Your task to perform on an android device: move an email to a new category in the gmail app Image 0: 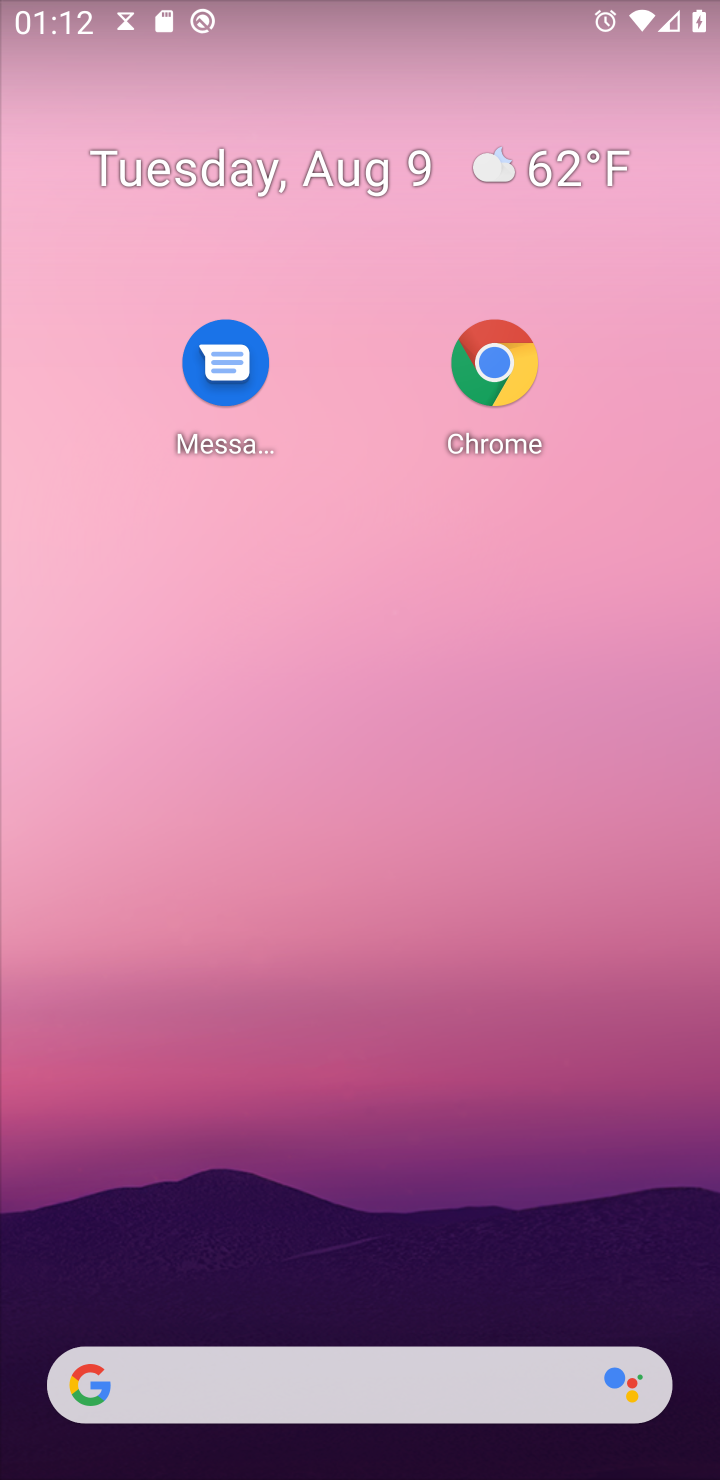
Step 0: drag from (246, 1328) to (302, 552)
Your task to perform on an android device: move an email to a new category in the gmail app Image 1: 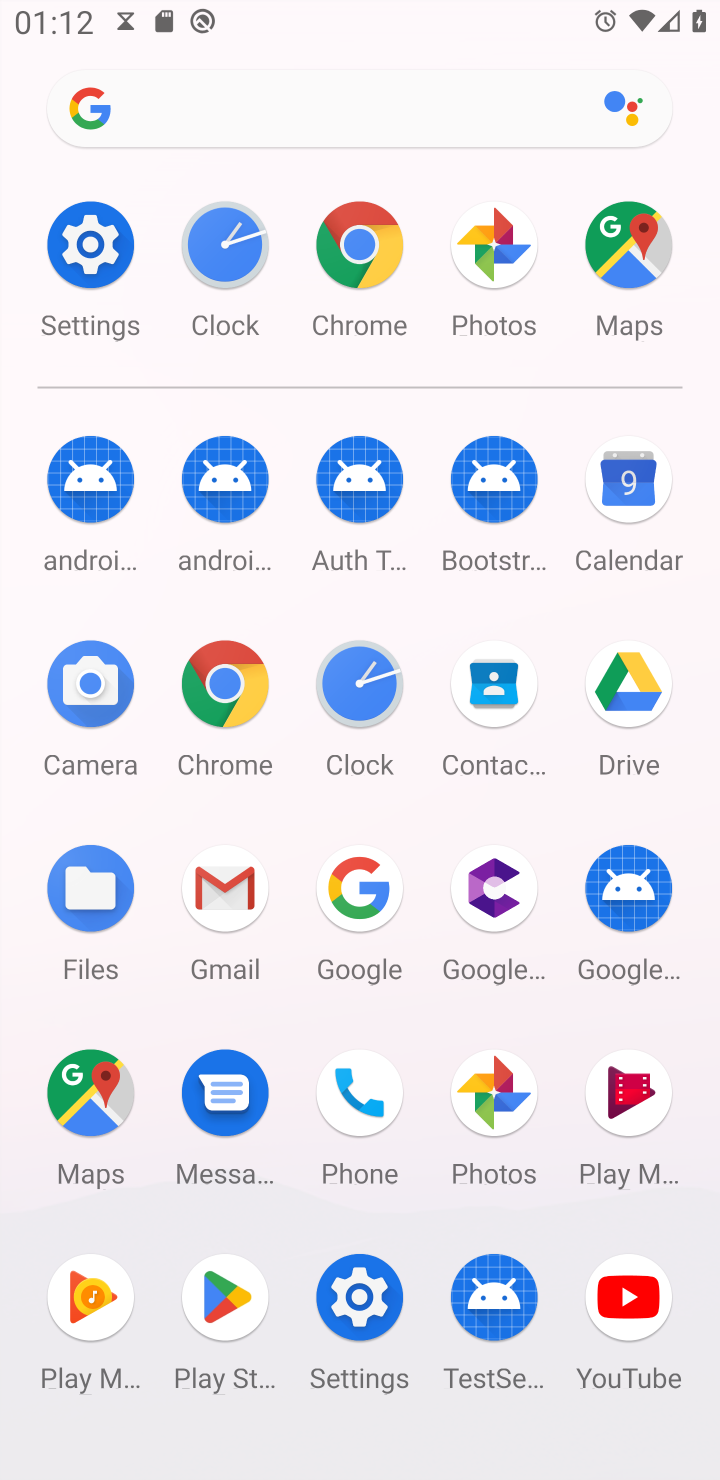
Step 1: click (221, 903)
Your task to perform on an android device: move an email to a new category in the gmail app Image 2: 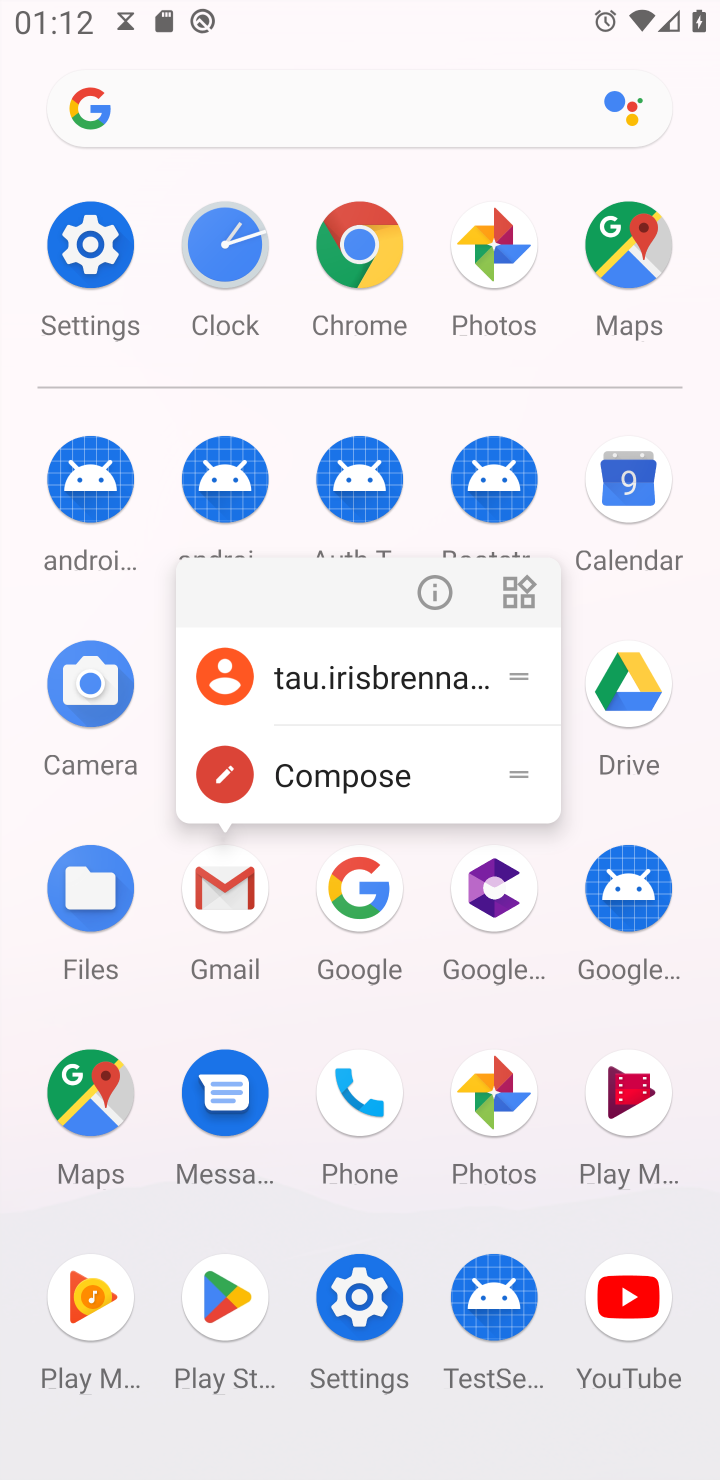
Step 2: click (234, 868)
Your task to perform on an android device: move an email to a new category in the gmail app Image 3: 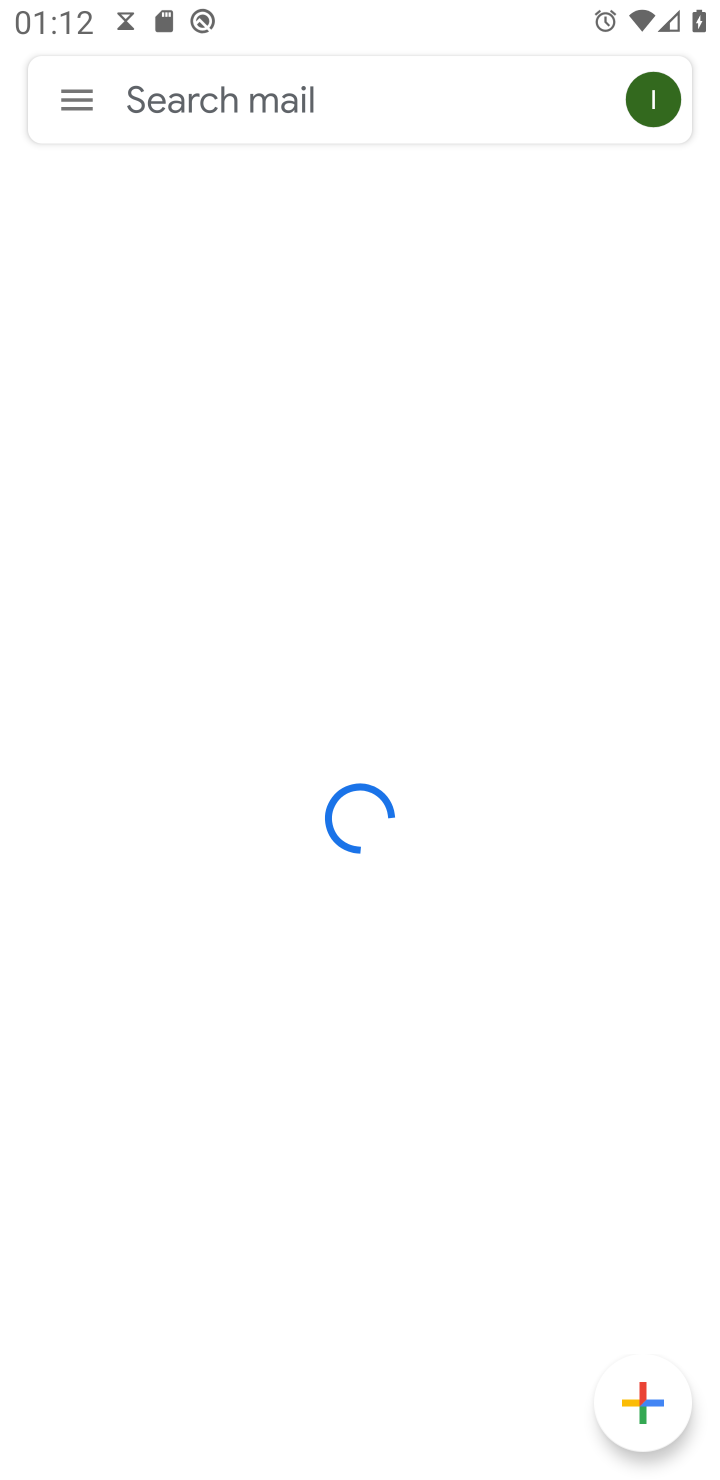
Step 3: click (70, 85)
Your task to perform on an android device: move an email to a new category in the gmail app Image 4: 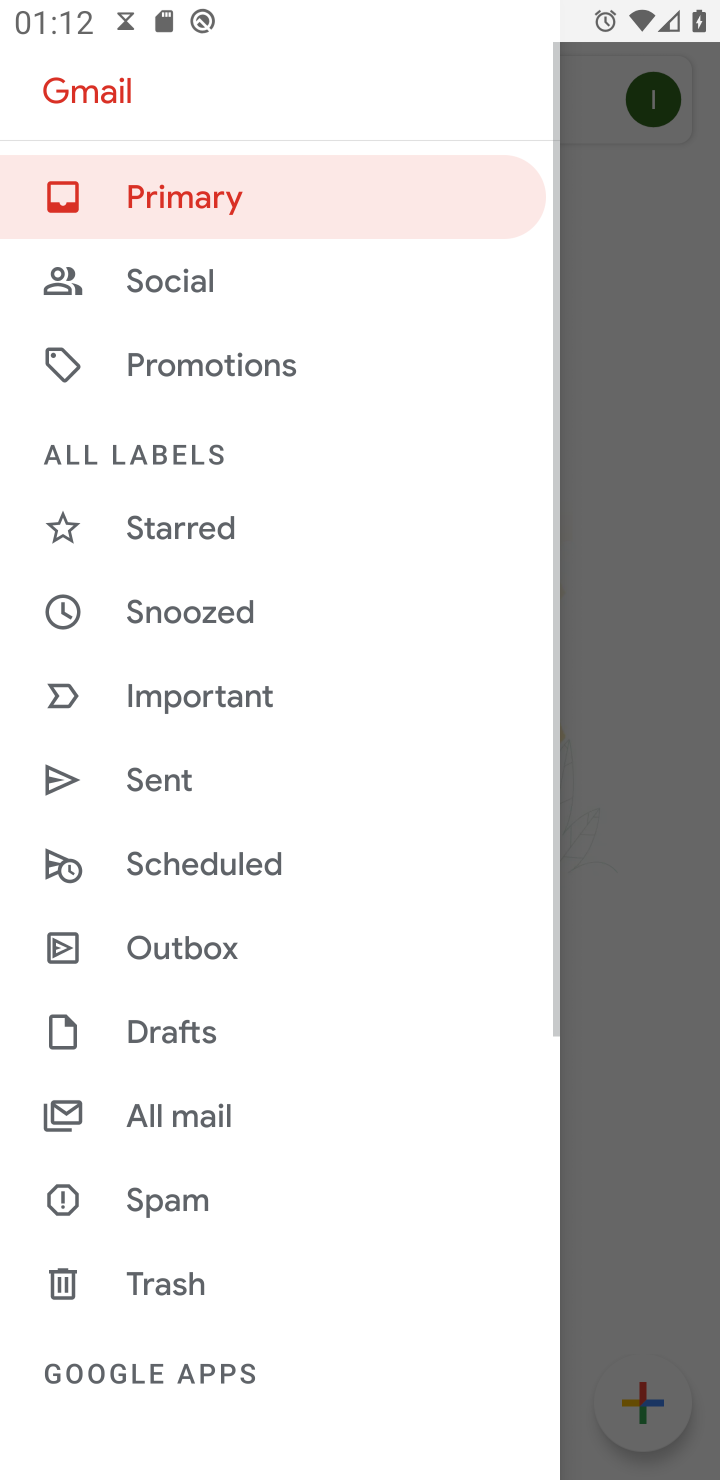
Step 4: click (210, 1127)
Your task to perform on an android device: move an email to a new category in the gmail app Image 5: 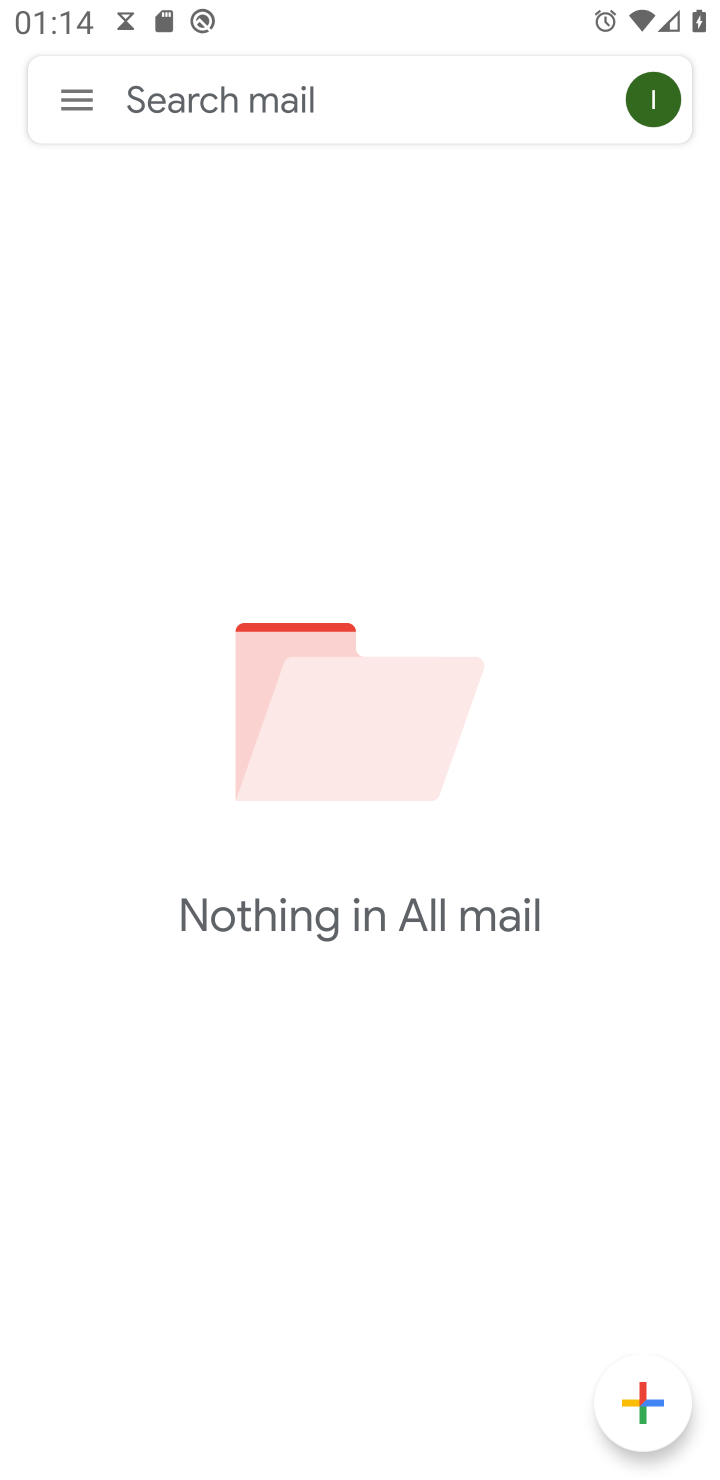
Step 5: task complete